Your task to perform on an android device: search for starred emails in the gmail app Image 0: 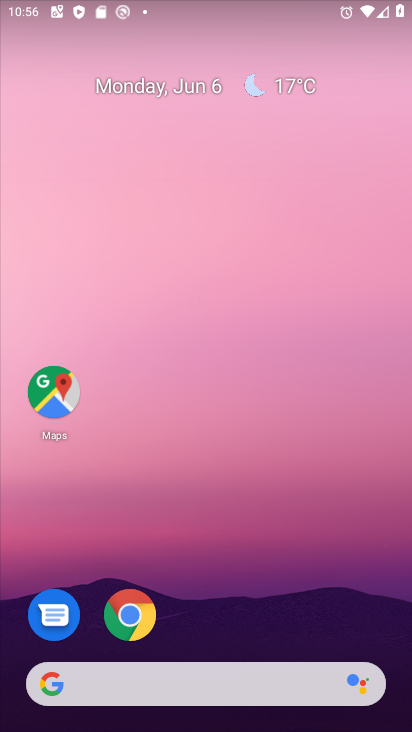
Step 0: drag from (226, 642) to (232, 18)
Your task to perform on an android device: search for starred emails in the gmail app Image 1: 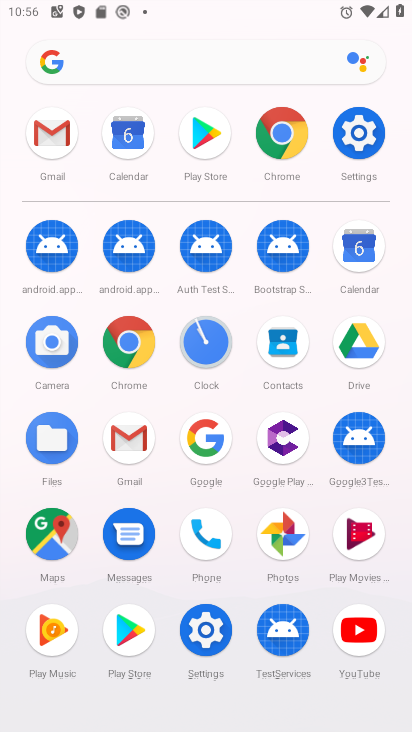
Step 1: click (52, 125)
Your task to perform on an android device: search for starred emails in the gmail app Image 2: 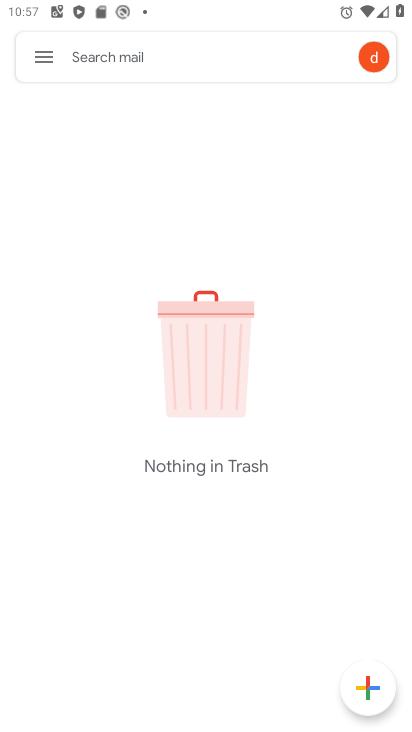
Step 2: click (42, 54)
Your task to perform on an android device: search for starred emails in the gmail app Image 3: 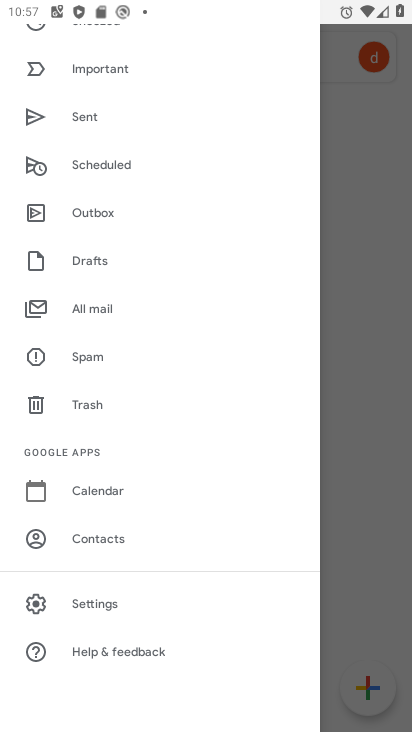
Step 3: drag from (134, 109) to (107, 582)
Your task to perform on an android device: search for starred emails in the gmail app Image 4: 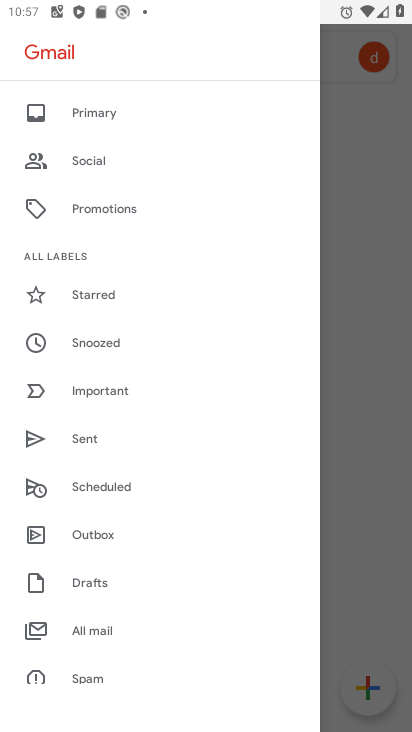
Step 4: click (123, 288)
Your task to perform on an android device: search for starred emails in the gmail app Image 5: 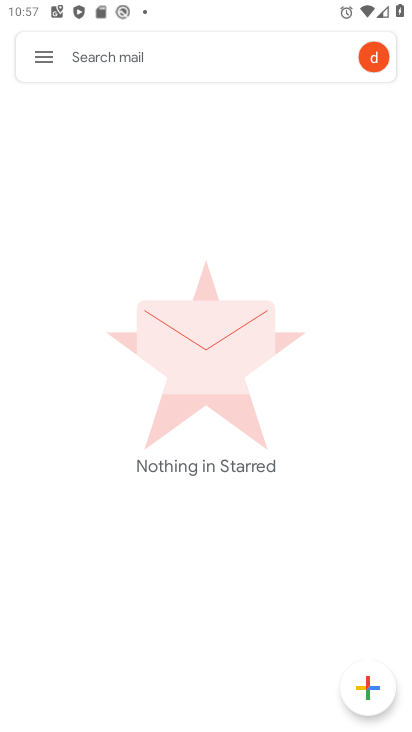
Step 5: task complete